Your task to perform on an android device: Open calendar and show me the fourth week of next month Image 0: 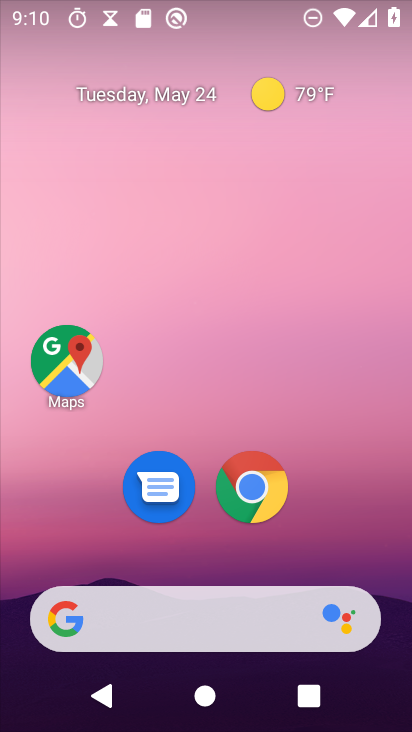
Step 0: drag from (10, 544) to (187, 171)
Your task to perform on an android device: Open calendar and show me the fourth week of next month Image 1: 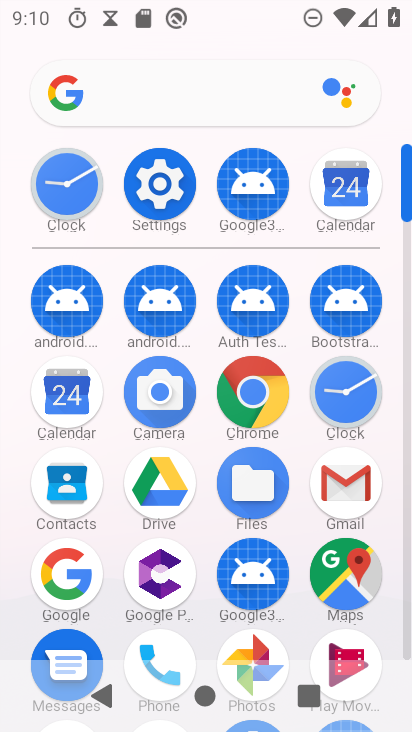
Step 1: click (59, 390)
Your task to perform on an android device: Open calendar and show me the fourth week of next month Image 2: 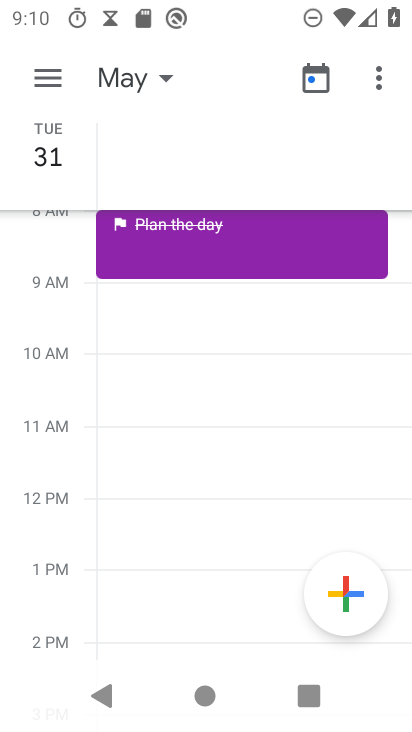
Step 2: click (133, 69)
Your task to perform on an android device: Open calendar and show me the fourth week of next month Image 3: 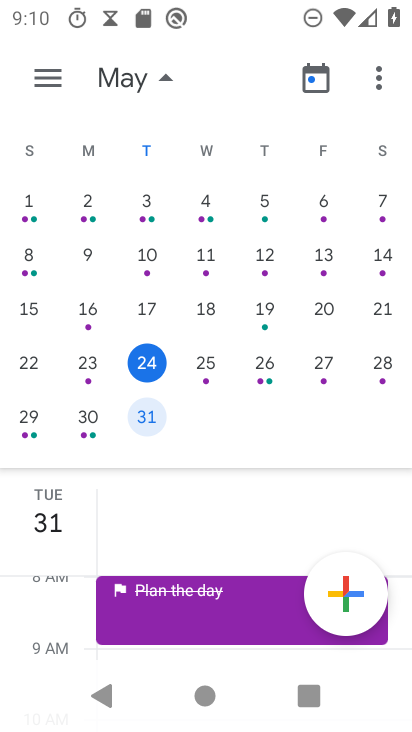
Step 3: drag from (368, 283) to (21, 220)
Your task to perform on an android device: Open calendar and show me the fourth week of next month Image 4: 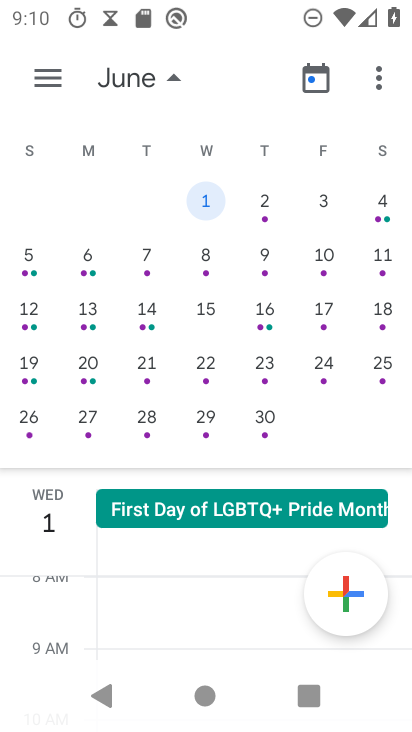
Step 4: click (213, 255)
Your task to perform on an android device: Open calendar and show me the fourth week of next month Image 5: 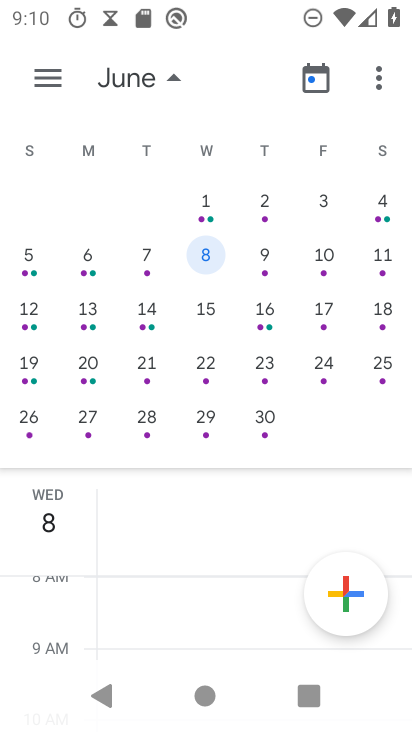
Step 5: click (213, 316)
Your task to perform on an android device: Open calendar and show me the fourth week of next month Image 6: 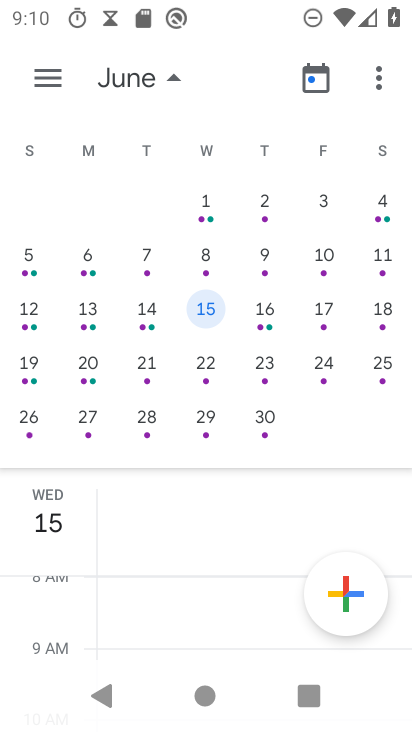
Step 6: click (203, 367)
Your task to perform on an android device: Open calendar and show me the fourth week of next month Image 7: 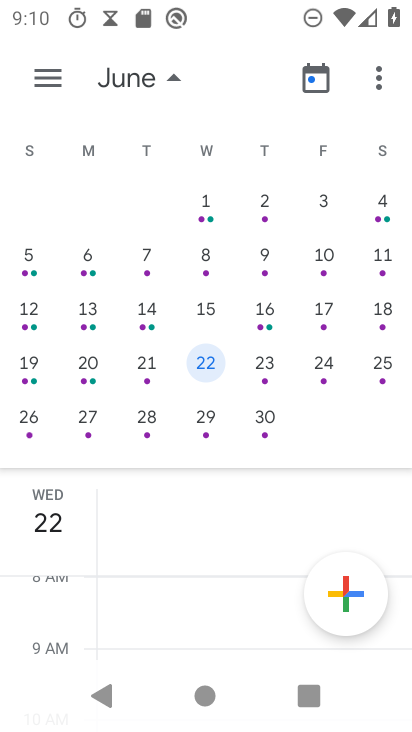
Step 7: click (259, 356)
Your task to perform on an android device: Open calendar and show me the fourth week of next month Image 8: 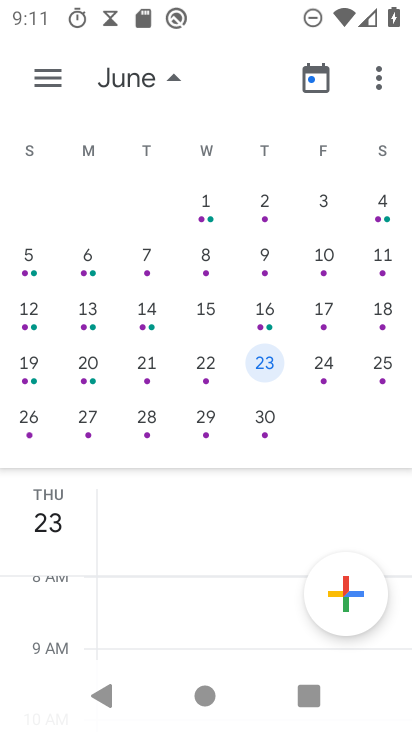
Step 8: task complete